Your task to perform on an android device: Open location settings Image 0: 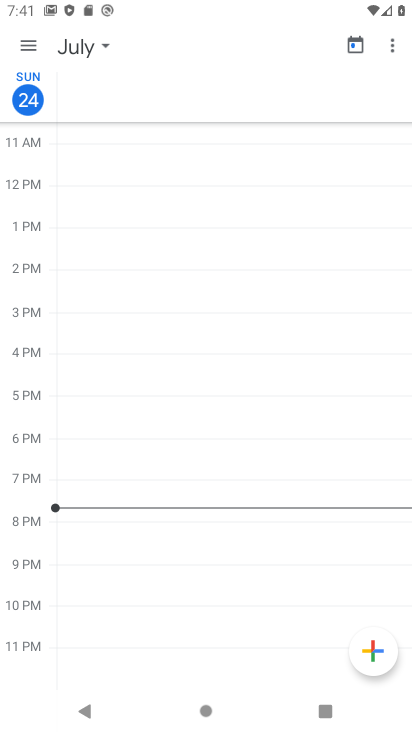
Step 0: press home button
Your task to perform on an android device: Open location settings Image 1: 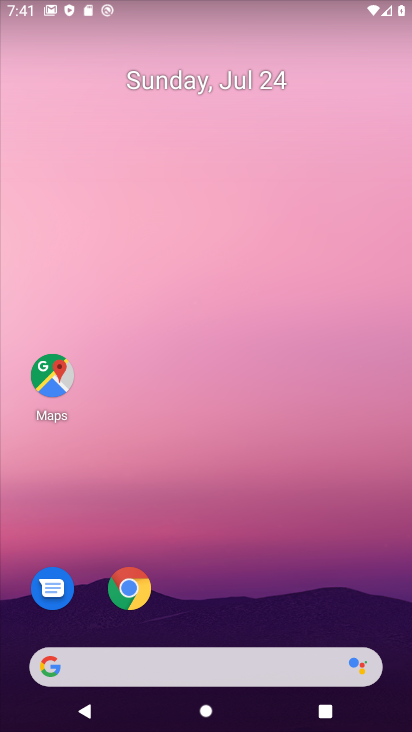
Step 1: drag from (254, 609) to (359, 91)
Your task to perform on an android device: Open location settings Image 2: 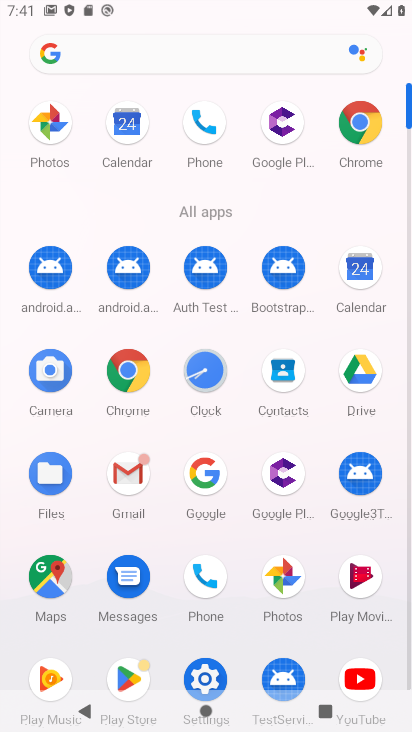
Step 2: click (196, 671)
Your task to perform on an android device: Open location settings Image 3: 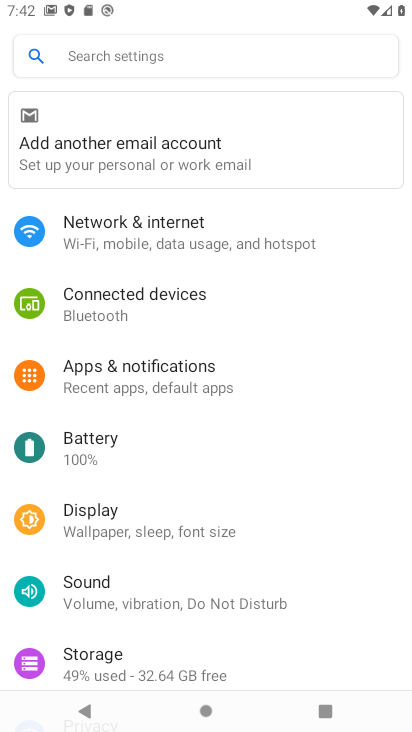
Step 3: drag from (178, 542) to (289, 207)
Your task to perform on an android device: Open location settings Image 4: 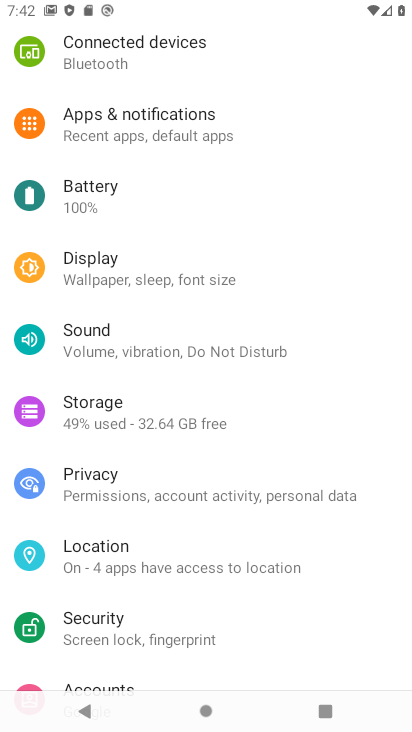
Step 4: click (96, 559)
Your task to perform on an android device: Open location settings Image 5: 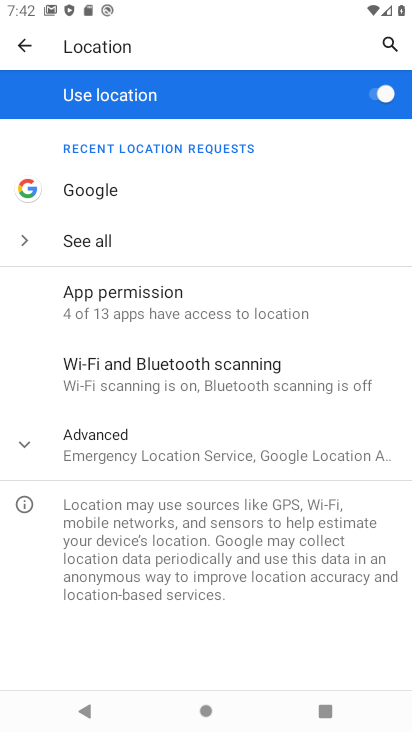
Step 5: task complete